Your task to perform on an android device: turn off location history Image 0: 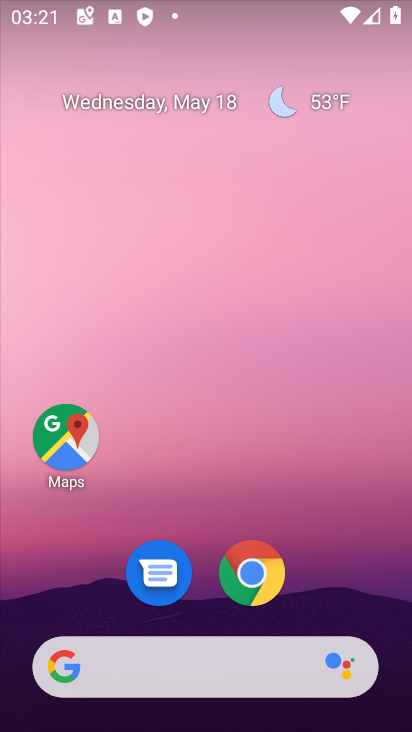
Step 0: drag from (201, 614) to (228, 231)
Your task to perform on an android device: turn off location history Image 1: 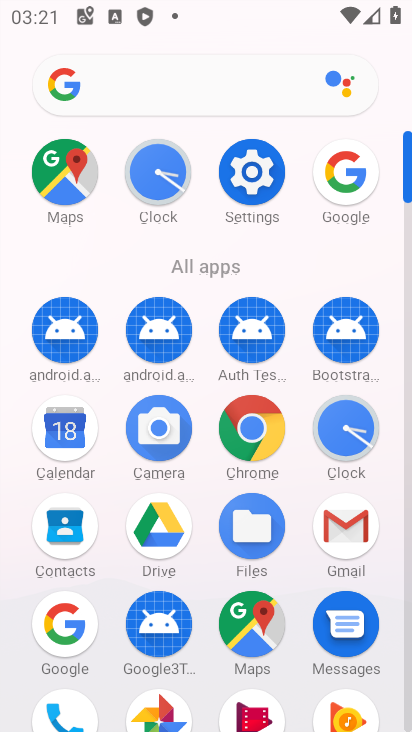
Step 1: click (244, 150)
Your task to perform on an android device: turn off location history Image 2: 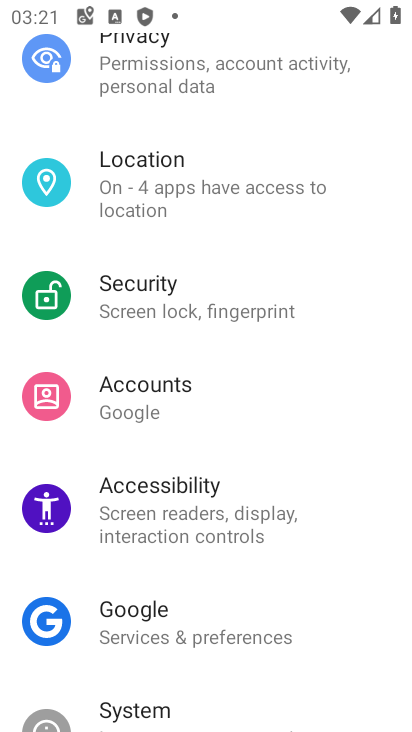
Step 2: click (204, 203)
Your task to perform on an android device: turn off location history Image 3: 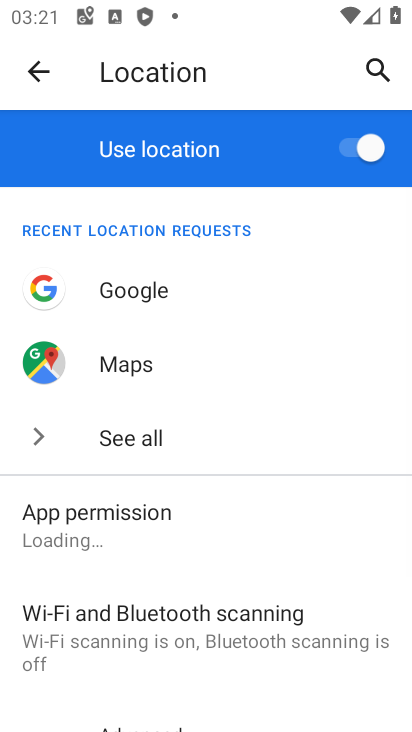
Step 3: drag from (226, 569) to (245, 310)
Your task to perform on an android device: turn off location history Image 4: 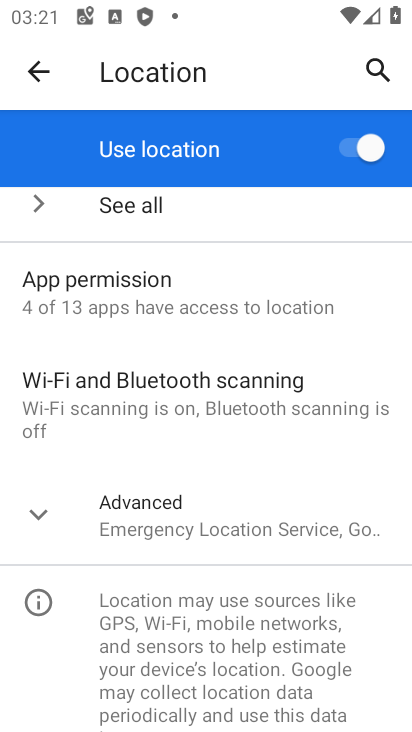
Step 4: click (174, 514)
Your task to perform on an android device: turn off location history Image 5: 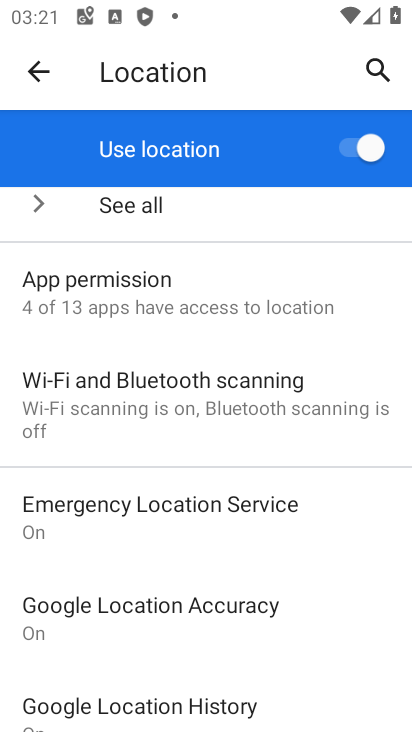
Step 5: drag from (199, 511) to (227, 452)
Your task to perform on an android device: turn off location history Image 6: 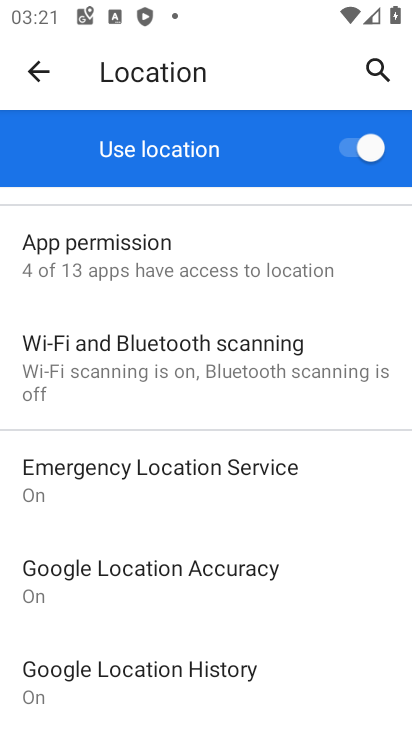
Step 6: click (193, 667)
Your task to perform on an android device: turn off location history Image 7: 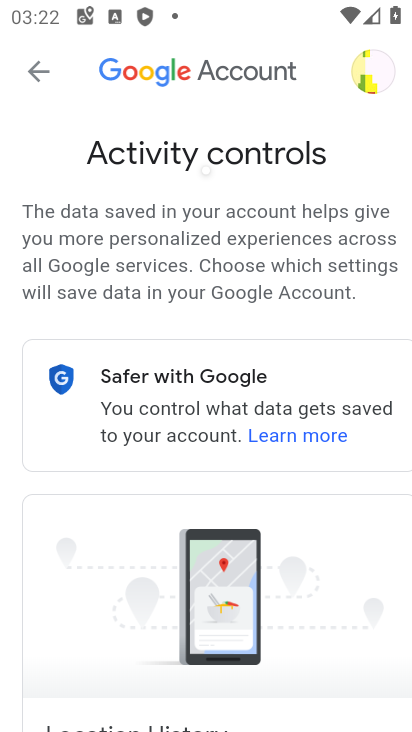
Step 7: drag from (282, 570) to (318, 293)
Your task to perform on an android device: turn off location history Image 8: 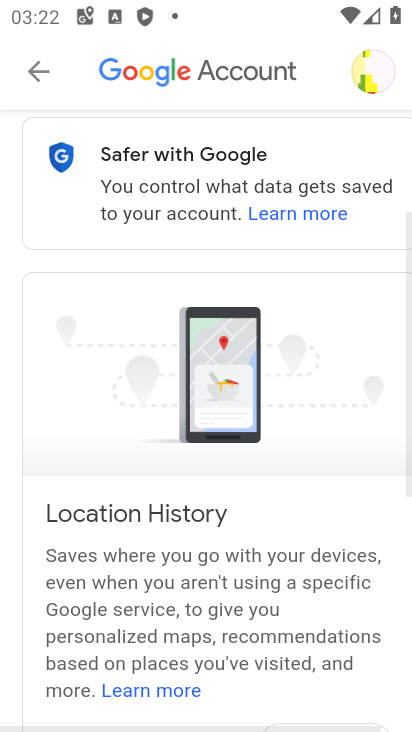
Step 8: drag from (289, 543) to (321, 324)
Your task to perform on an android device: turn off location history Image 9: 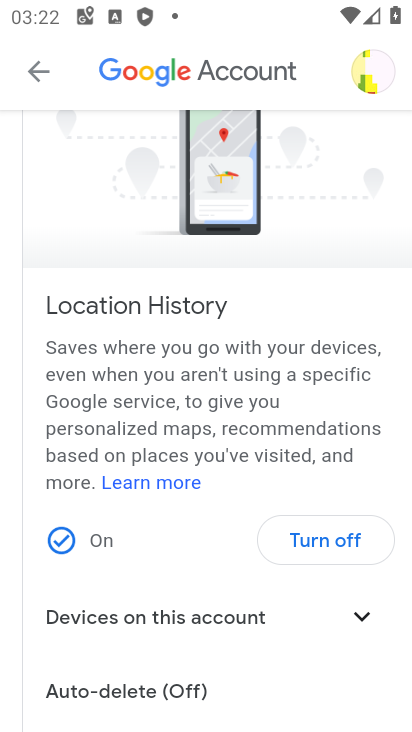
Step 9: click (312, 535)
Your task to perform on an android device: turn off location history Image 10: 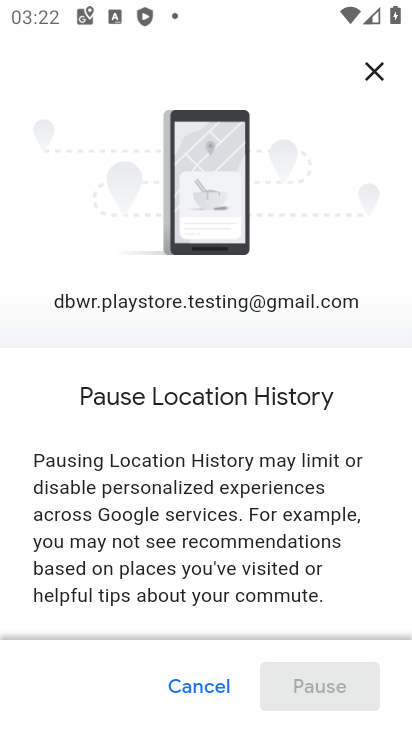
Step 10: drag from (271, 563) to (304, 310)
Your task to perform on an android device: turn off location history Image 11: 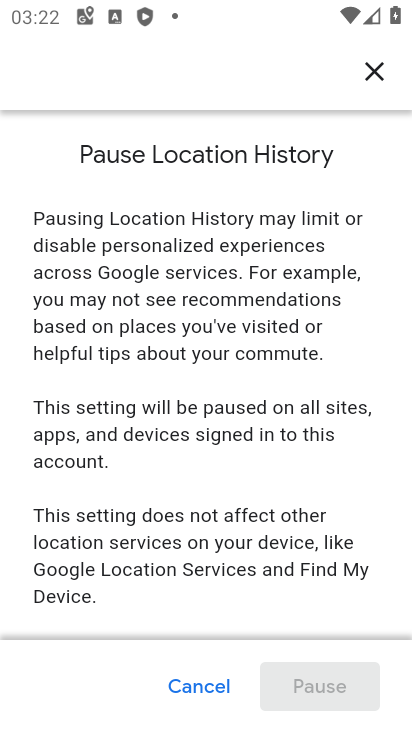
Step 11: drag from (239, 588) to (275, 300)
Your task to perform on an android device: turn off location history Image 12: 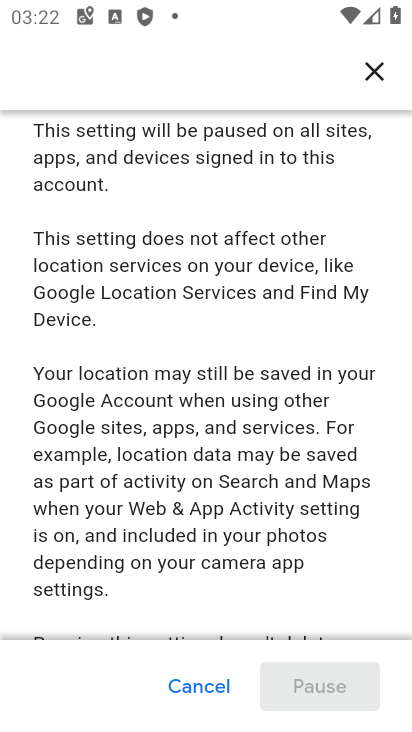
Step 12: drag from (214, 591) to (289, 233)
Your task to perform on an android device: turn off location history Image 13: 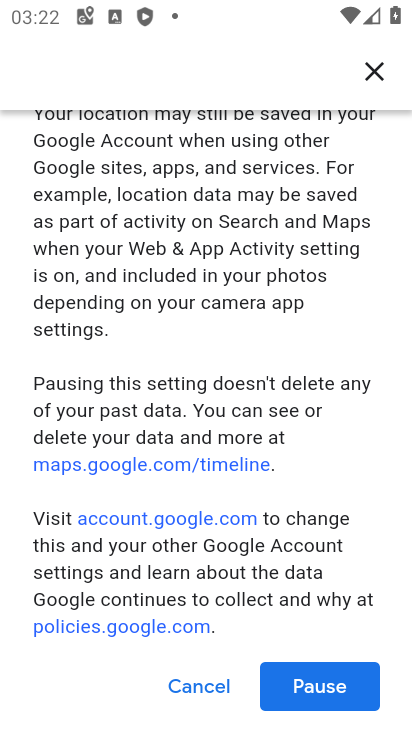
Step 13: click (289, 682)
Your task to perform on an android device: turn off location history Image 14: 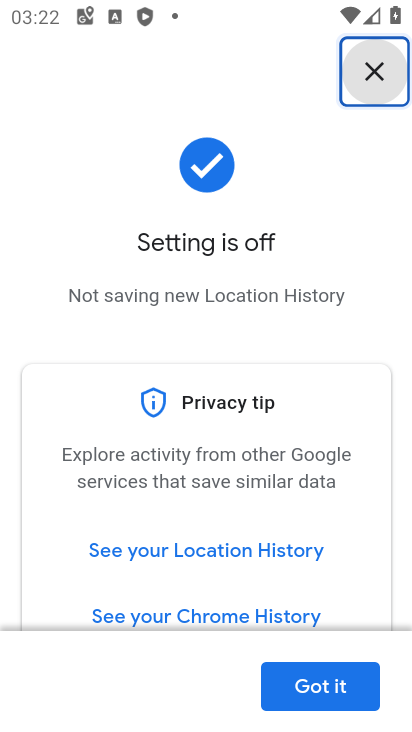
Step 14: task complete